Your task to perform on an android device: open chrome privacy settings Image 0: 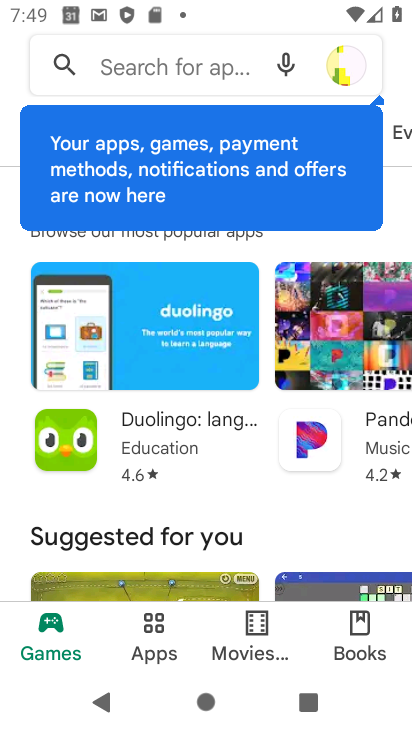
Step 0: press home button
Your task to perform on an android device: open chrome privacy settings Image 1: 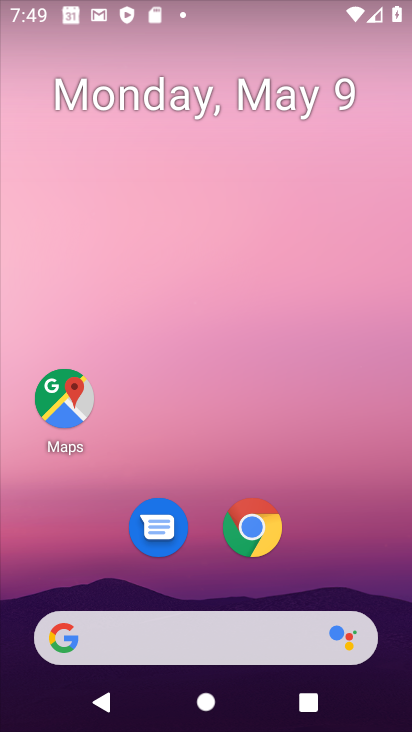
Step 1: drag from (231, 605) to (244, 201)
Your task to perform on an android device: open chrome privacy settings Image 2: 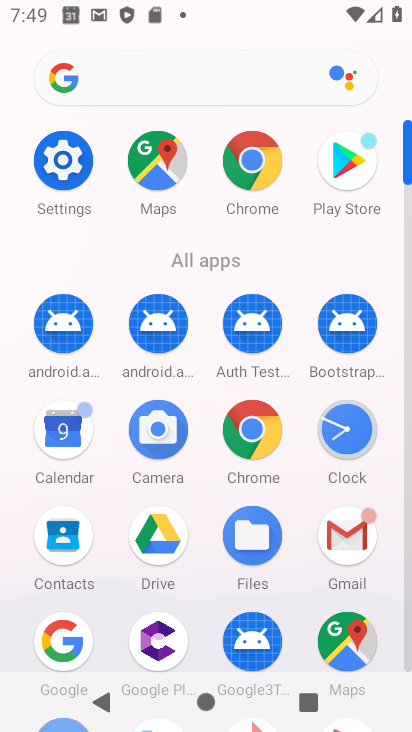
Step 2: click (258, 444)
Your task to perform on an android device: open chrome privacy settings Image 3: 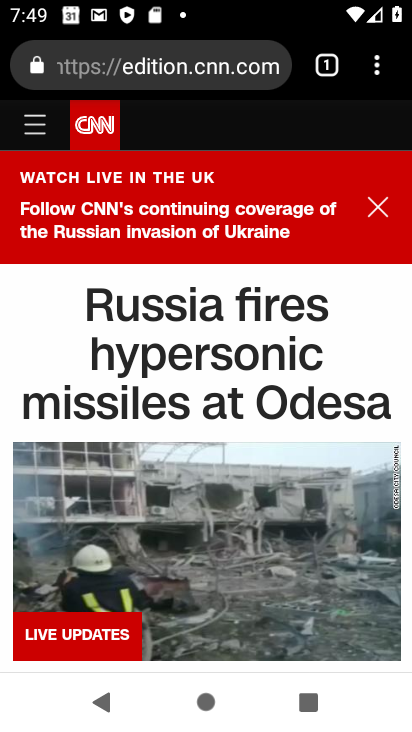
Step 3: click (382, 68)
Your task to perform on an android device: open chrome privacy settings Image 4: 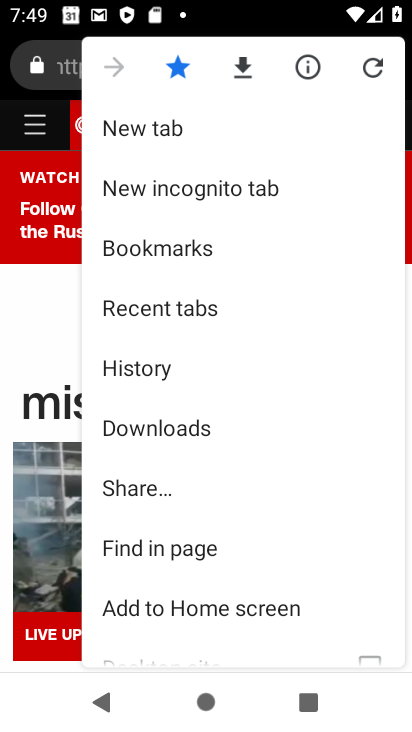
Step 4: drag from (271, 416) to (286, 256)
Your task to perform on an android device: open chrome privacy settings Image 5: 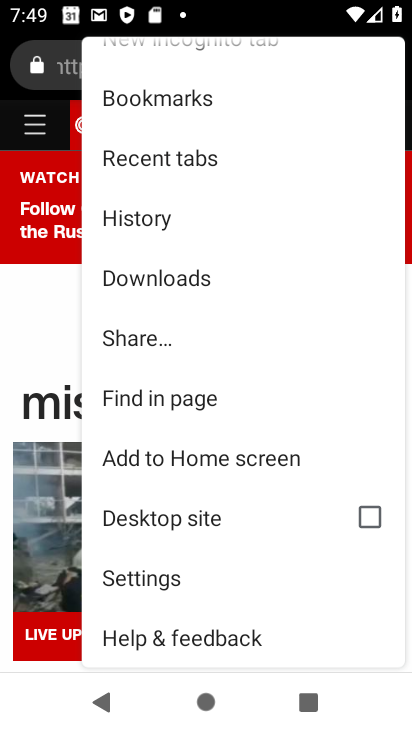
Step 5: drag from (283, 387) to (294, 266)
Your task to perform on an android device: open chrome privacy settings Image 6: 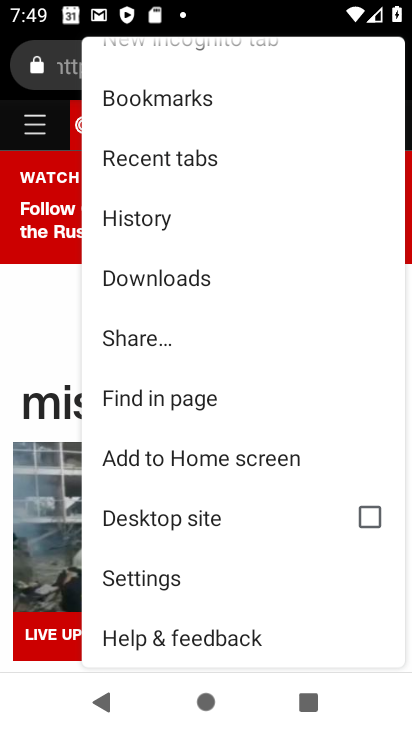
Step 6: drag from (249, 558) to (261, 339)
Your task to perform on an android device: open chrome privacy settings Image 7: 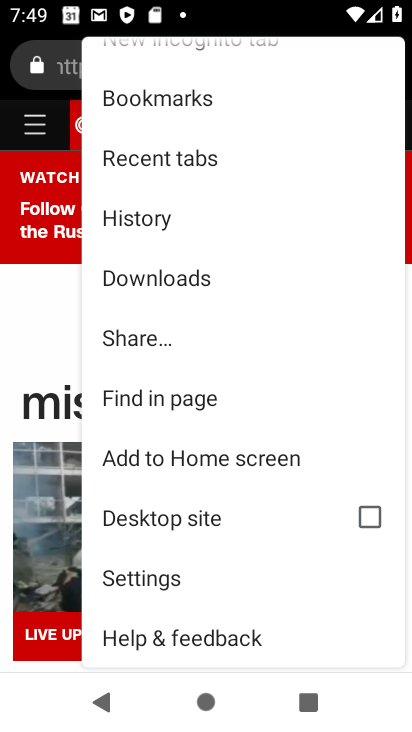
Step 7: click (224, 571)
Your task to perform on an android device: open chrome privacy settings Image 8: 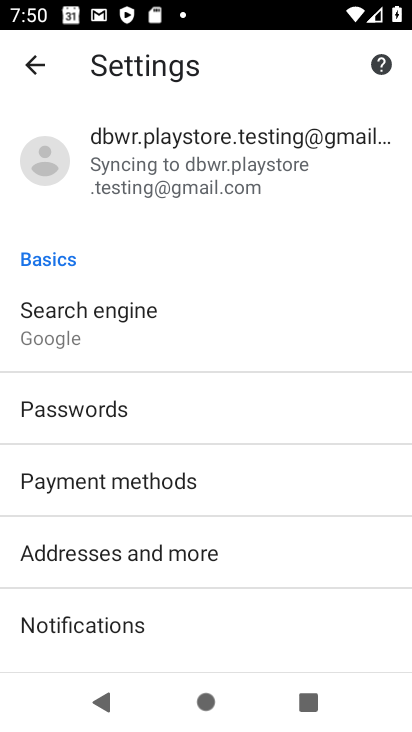
Step 8: drag from (223, 567) to (213, 280)
Your task to perform on an android device: open chrome privacy settings Image 9: 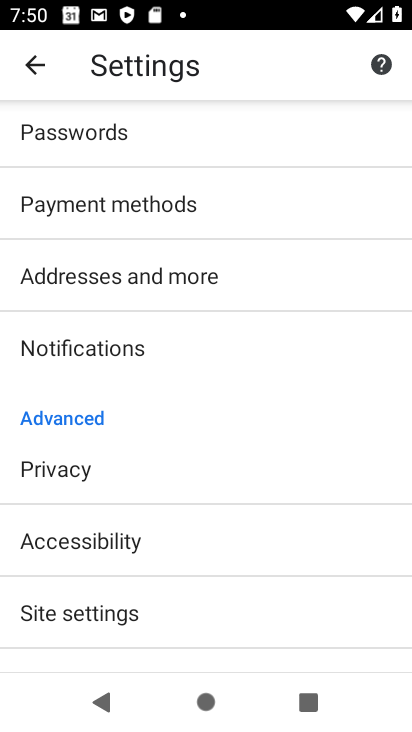
Step 9: drag from (199, 540) to (197, 295)
Your task to perform on an android device: open chrome privacy settings Image 10: 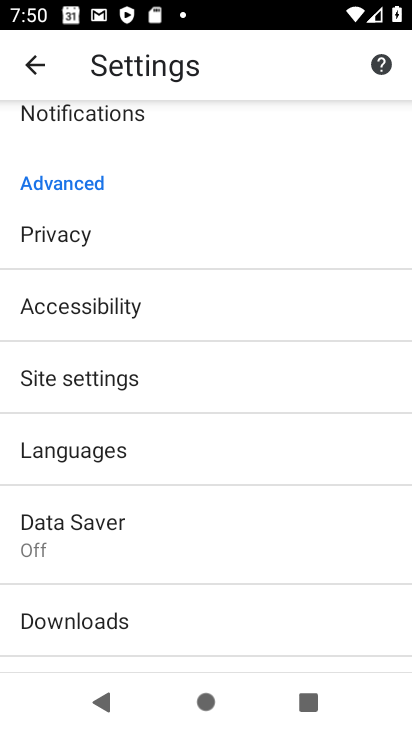
Step 10: drag from (212, 591) to (221, 449)
Your task to perform on an android device: open chrome privacy settings Image 11: 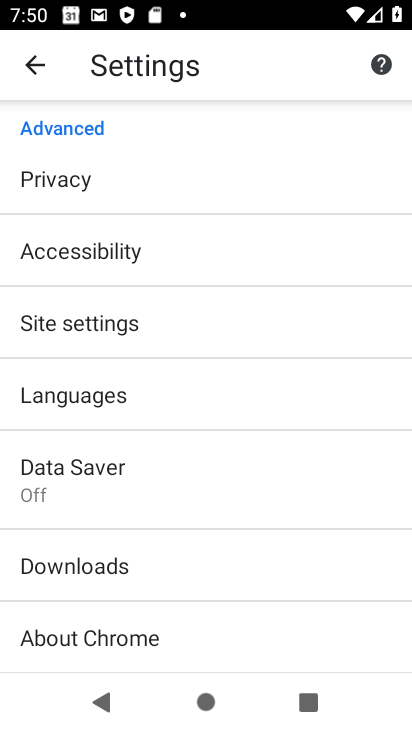
Step 11: drag from (185, 558) to (228, 216)
Your task to perform on an android device: open chrome privacy settings Image 12: 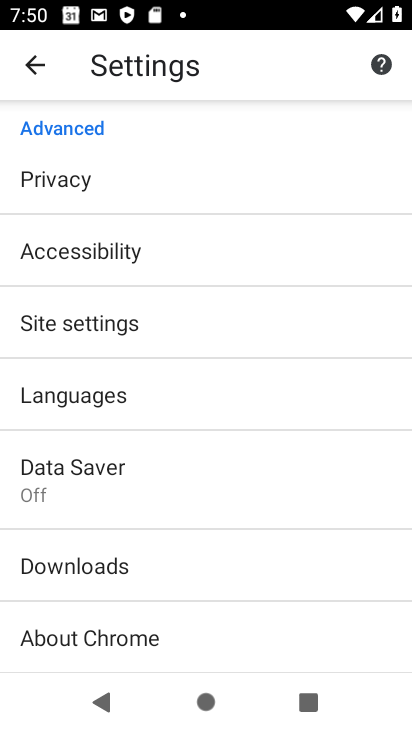
Step 12: click (125, 184)
Your task to perform on an android device: open chrome privacy settings Image 13: 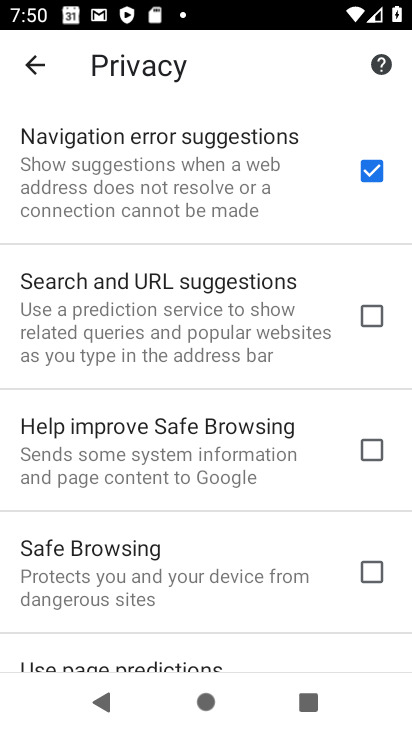
Step 13: task complete